Your task to perform on an android device: Go to notification settings Image 0: 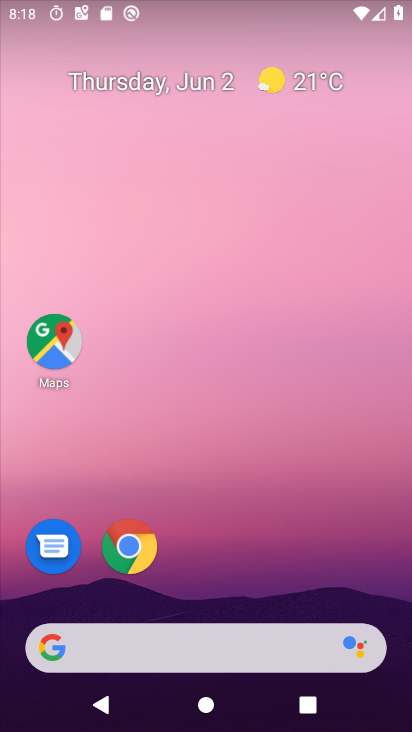
Step 0: drag from (319, 579) to (368, 74)
Your task to perform on an android device: Go to notification settings Image 1: 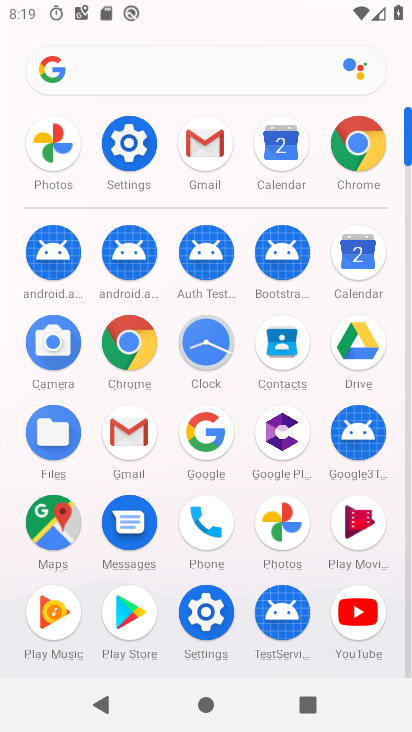
Step 1: click (142, 156)
Your task to perform on an android device: Go to notification settings Image 2: 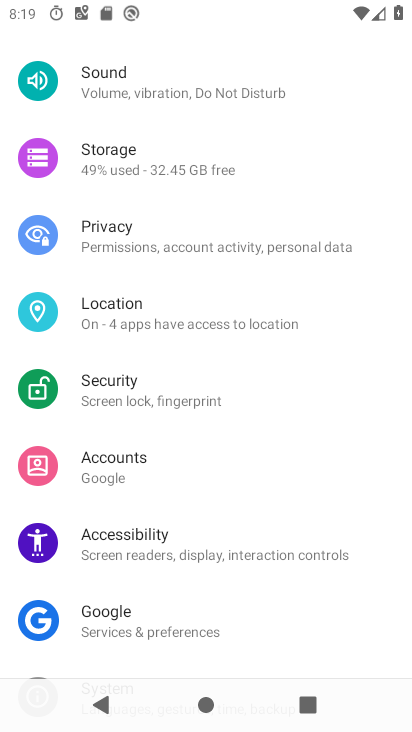
Step 2: drag from (142, 156) to (154, 510)
Your task to perform on an android device: Go to notification settings Image 3: 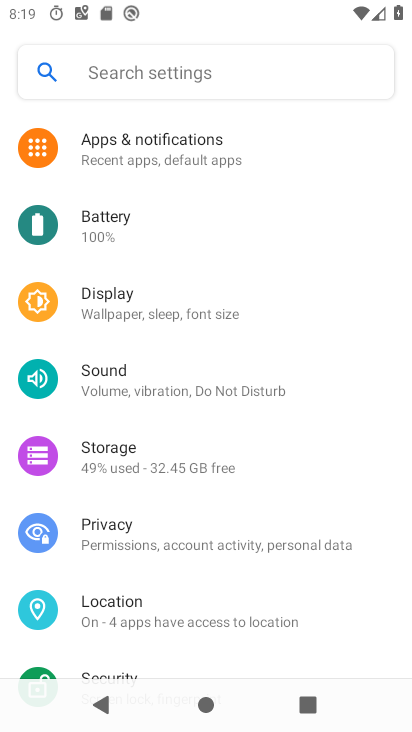
Step 3: click (219, 137)
Your task to perform on an android device: Go to notification settings Image 4: 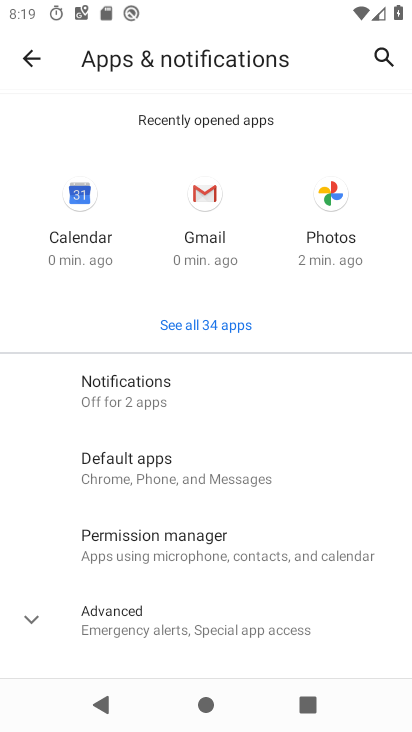
Step 4: click (241, 399)
Your task to perform on an android device: Go to notification settings Image 5: 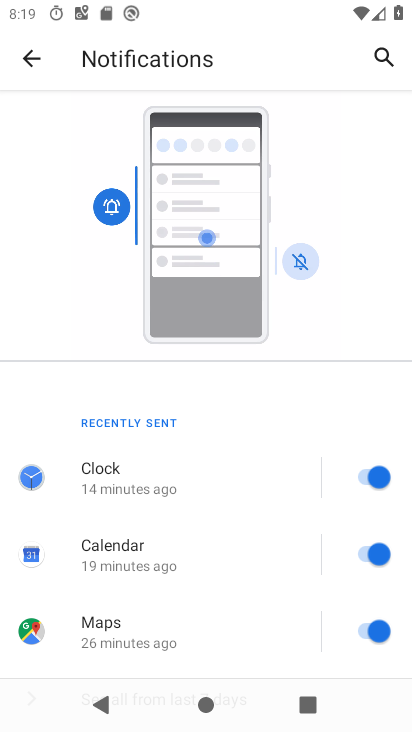
Step 5: task complete